Your task to perform on an android device: What's the weather going to be tomorrow? Image 0: 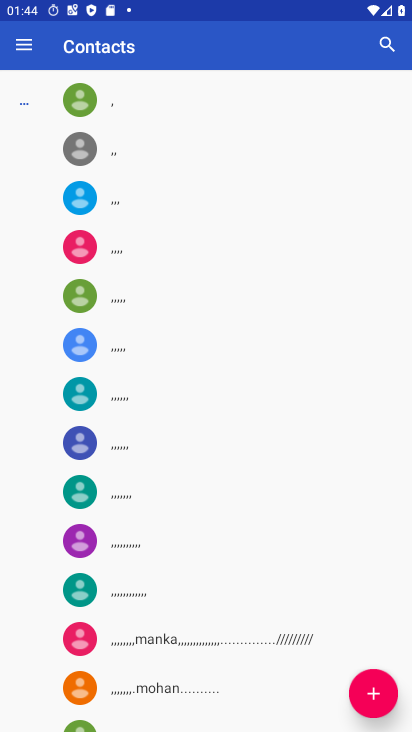
Step 0: press home button
Your task to perform on an android device: What's the weather going to be tomorrow? Image 1: 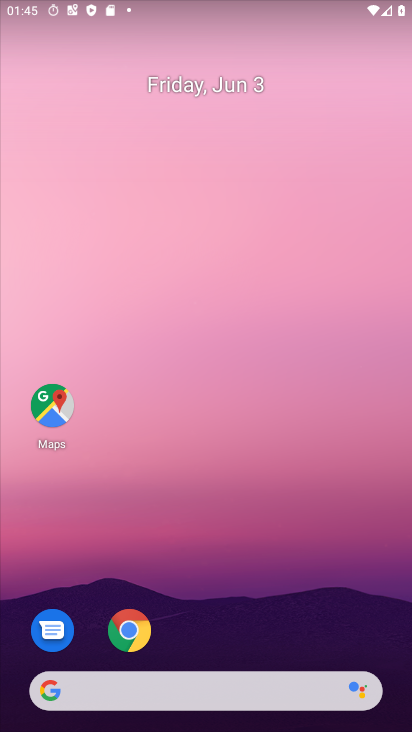
Step 1: drag from (203, 630) to (120, 106)
Your task to perform on an android device: What's the weather going to be tomorrow? Image 2: 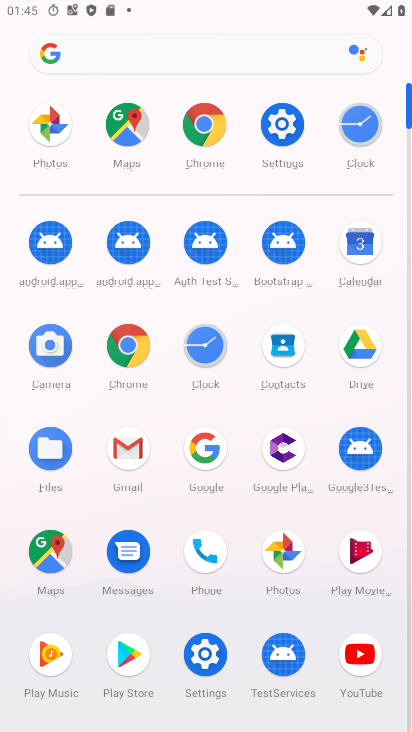
Step 2: click (194, 49)
Your task to perform on an android device: What's the weather going to be tomorrow? Image 3: 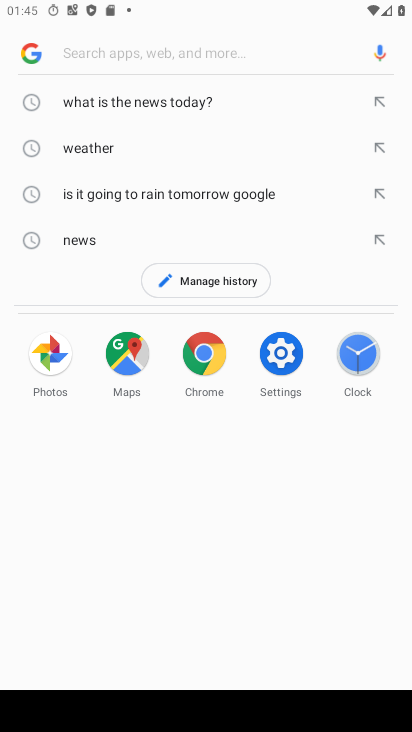
Step 3: drag from (38, 730) to (404, 728)
Your task to perform on an android device: What's the weather going to be tomorrow? Image 4: 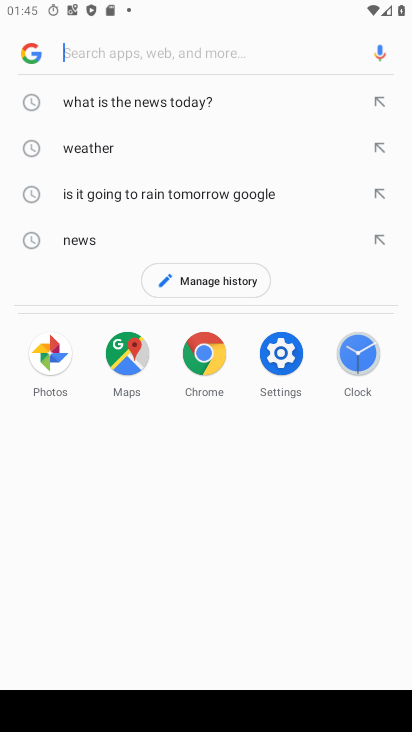
Step 4: type "What's the weather going to be tomorrow?"
Your task to perform on an android device: What's the weather going to be tomorrow? Image 5: 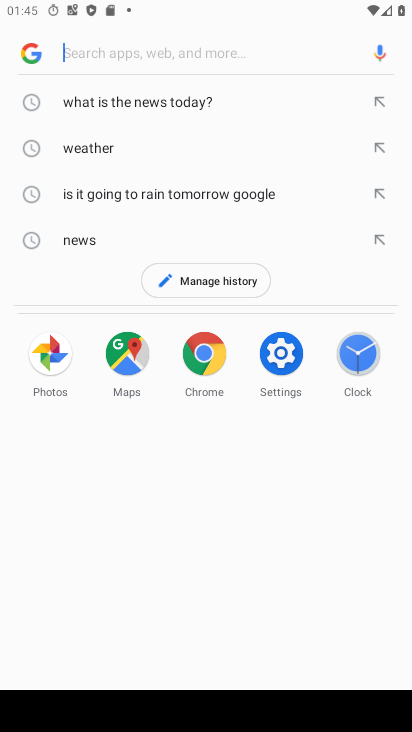
Step 5: drag from (404, 728) to (395, 291)
Your task to perform on an android device: What's the weather going to be tomorrow? Image 6: 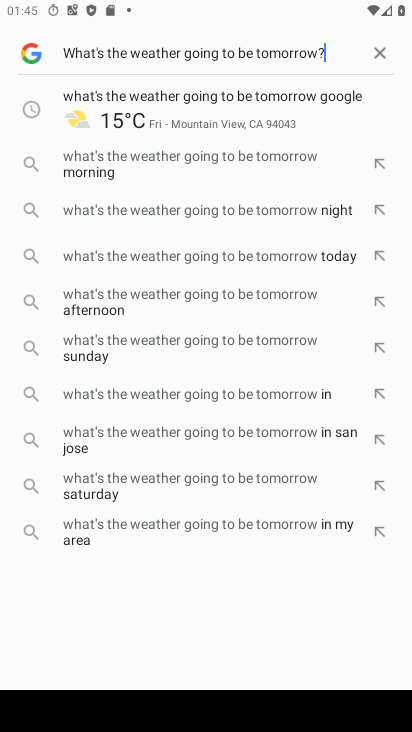
Step 6: click (255, 101)
Your task to perform on an android device: What's the weather going to be tomorrow? Image 7: 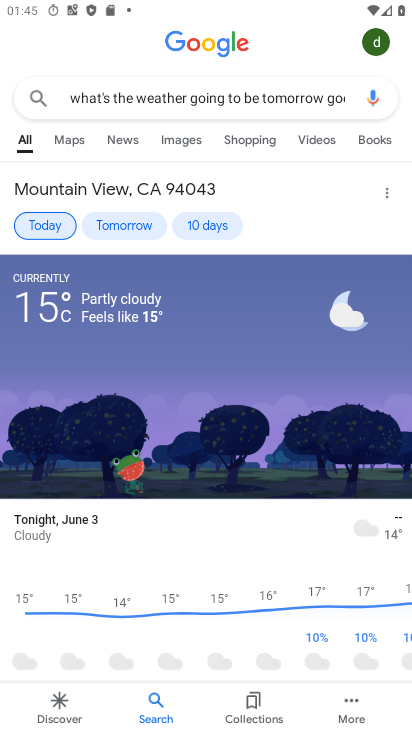
Step 7: task complete